Your task to perform on an android device: What is the recent news? Image 0: 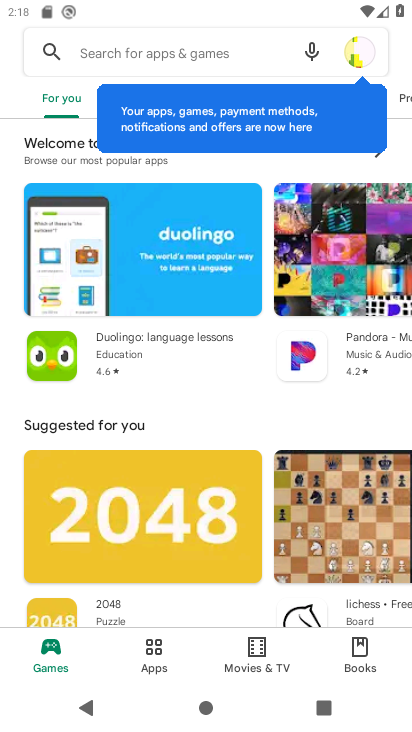
Step 0: press home button
Your task to perform on an android device: What is the recent news? Image 1: 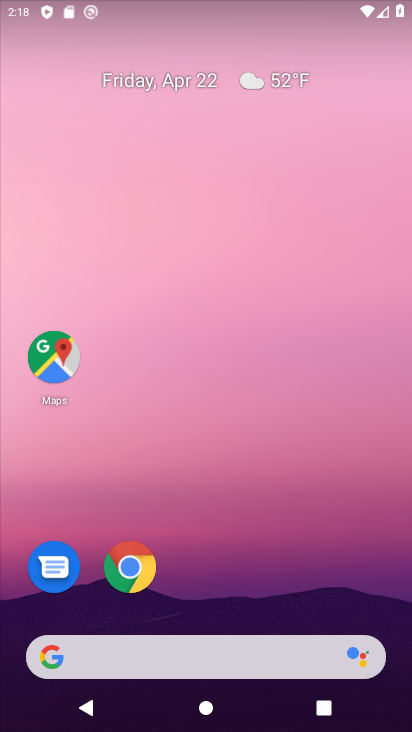
Step 1: drag from (223, 571) to (210, 83)
Your task to perform on an android device: What is the recent news? Image 2: 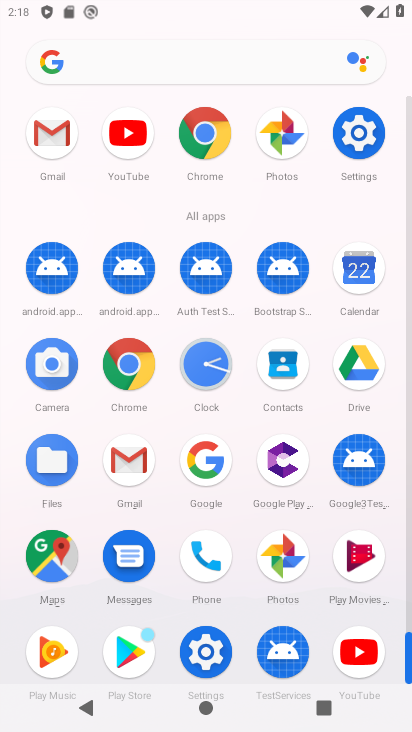
Step 2: click (208, 464)
Your task to perform on an android device: What is the recent news? Image 3: 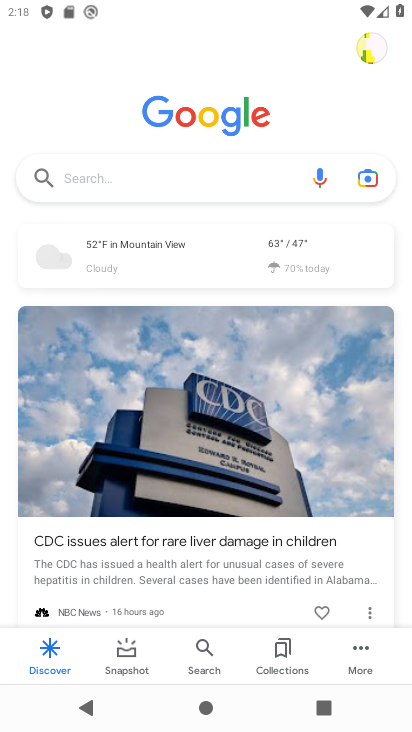
Step 3: task complete